Your task to perform on an android device: change timer sound Image 0: 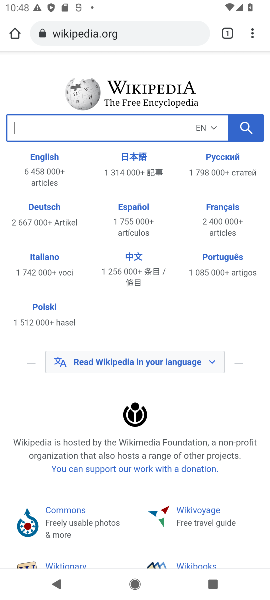
Step 0: press home button
Your task to perform on an android device: change timer sound Image 1: 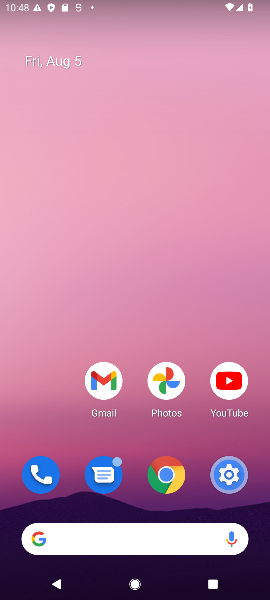
Step 1: drag from (140, 486) to (148, 45)
Your task to perform on an android device: change timer sound Image 2: 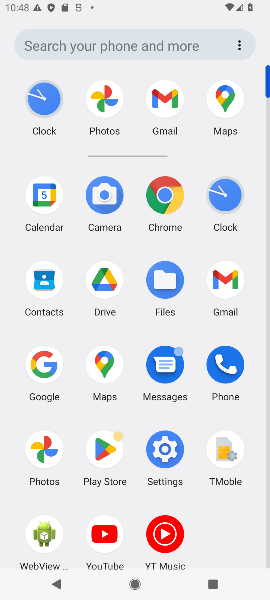
Step 2: click (229, 204)
Your task to perform on an android device: change timer sound Image 3: 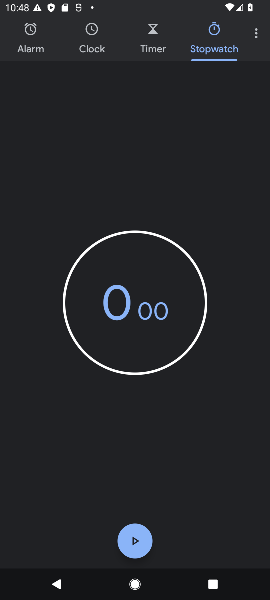
Step 3: click (254, 33)
Your task to perform on an android device: change timer sound Image 4: 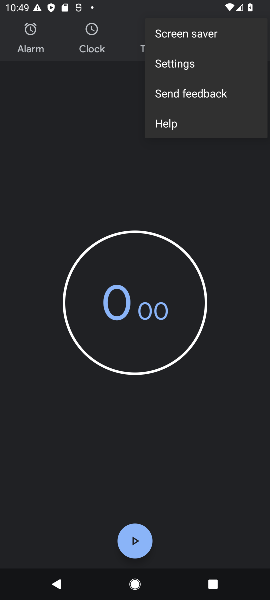
Step 4: click (183, 67)
Your task to perform on an android device: change timer sound Image 5: 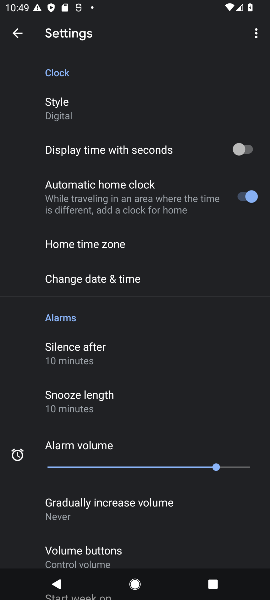
Step 5: drag from (98, 427) to (111, 270)
Your task to perform on an android device: change timer sound Image 6: 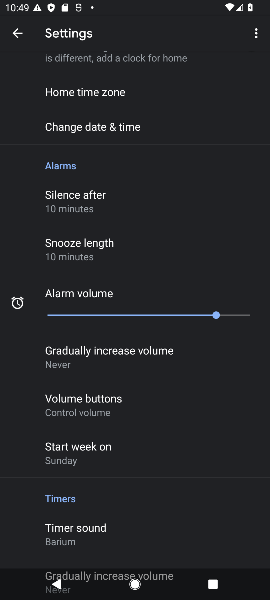
Step 6: click (80, 528)
Your task to perform on an android device: change timer sound Image 7: 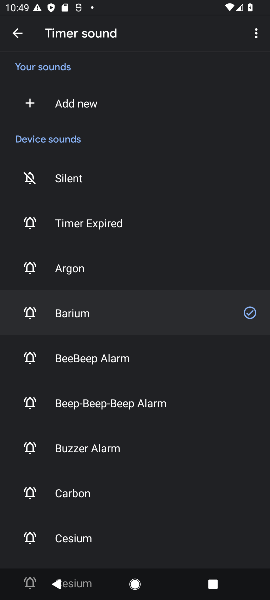
Step 7: click (67, 229)
Your task to perform on an android device: change timer sound Image 8: 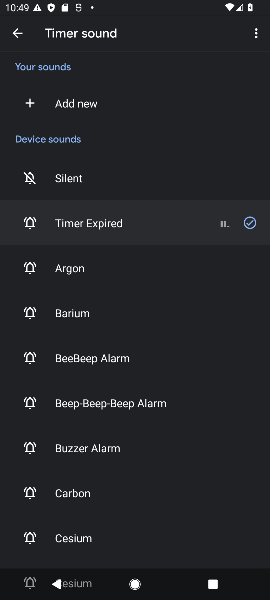
Step 8: task complete